Your task to perform on an android device: search for starred emails in the gmail app Image 0: 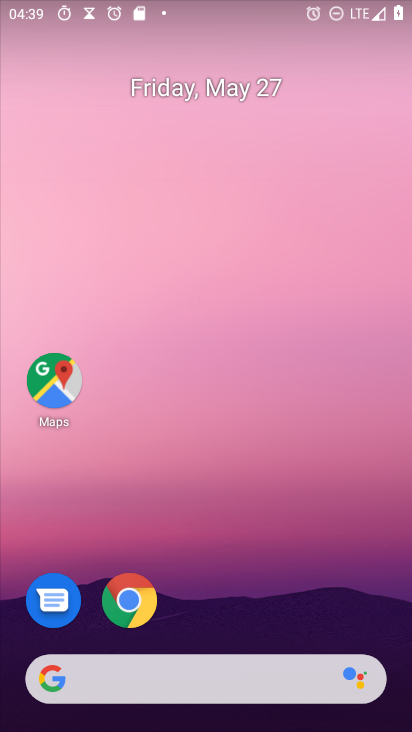
Step 0: click (131, 600)
Your task to perform on an android device: search for starred emails in the gmail app Image 1: 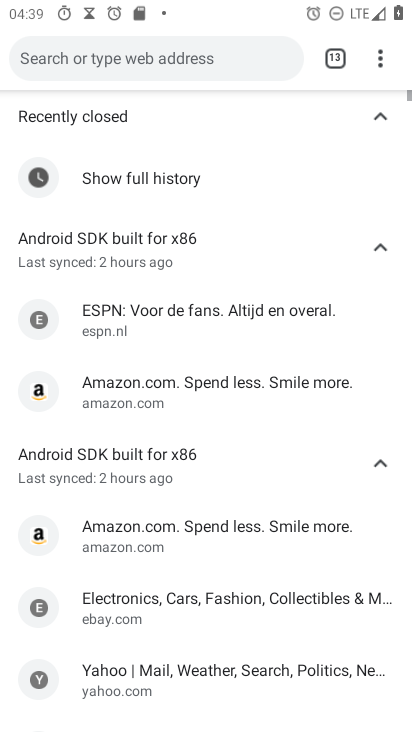
Step 1: press home button
Your task to perform on an android device: search for starred emails in the gmail app Image 2: 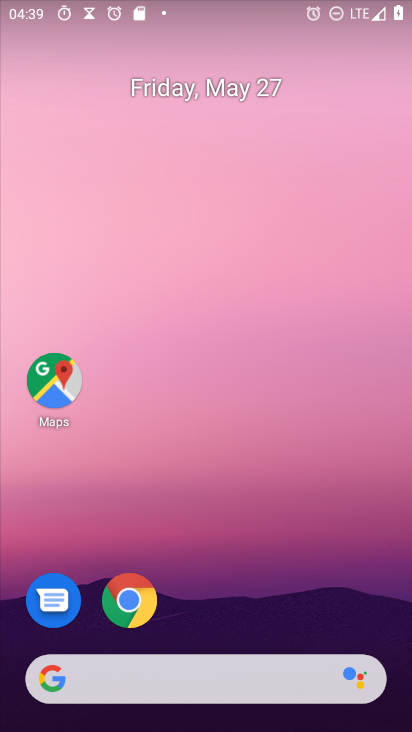
Step 2: drag from (250, 705) to (261, 259)
Your task to perform on an android device: search for starred emails in the gmail app Image 3: 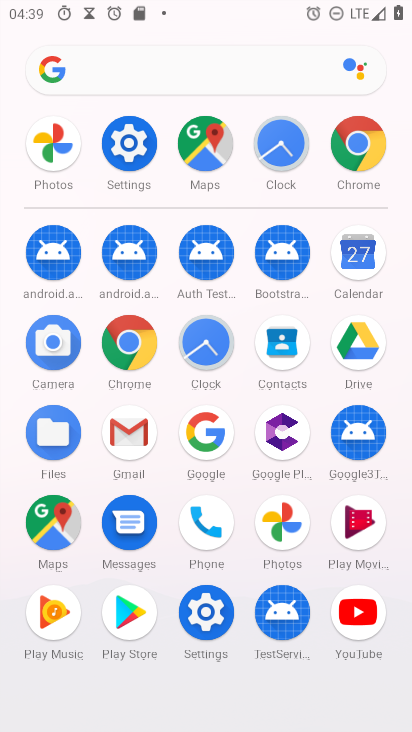
Step 3: click (132, 433)
Your task to perform on an android device: search for starred emails in the gmail app Image 4: 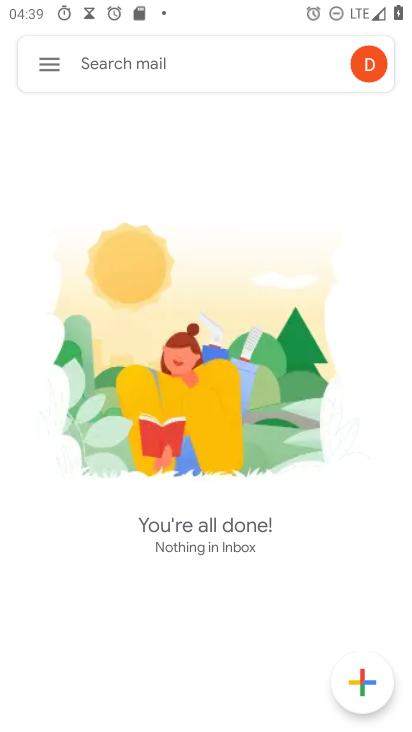
Step 4: click (51, 63)
Your task to perform on an android device: search for starred emails in the gmail app Image 5: 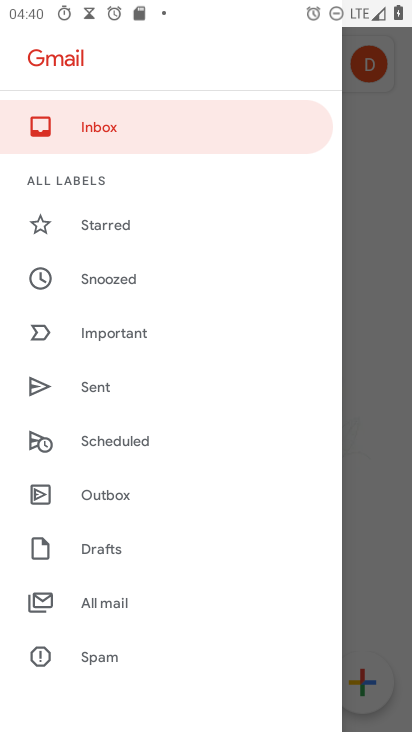
Step 5: drag from (121, 657) to (168, 303)
Your task to perform on an android device: search for starred emails in the gmail app Image 6: 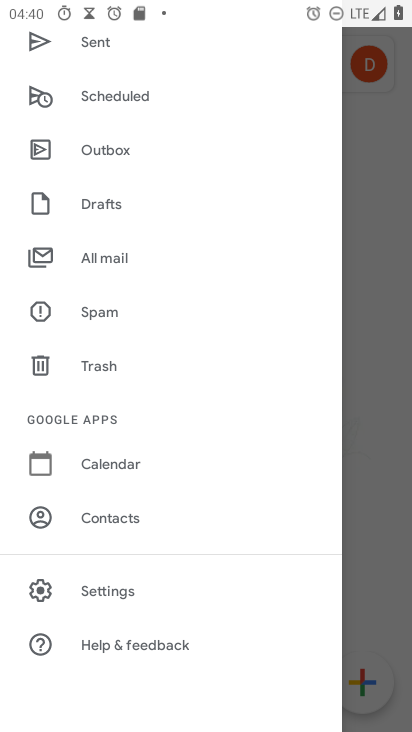
Step 6: drag from (151, 121) to (171, 337)
Your task to perform on an android device: search for starred emails in the gmail app Image 7: 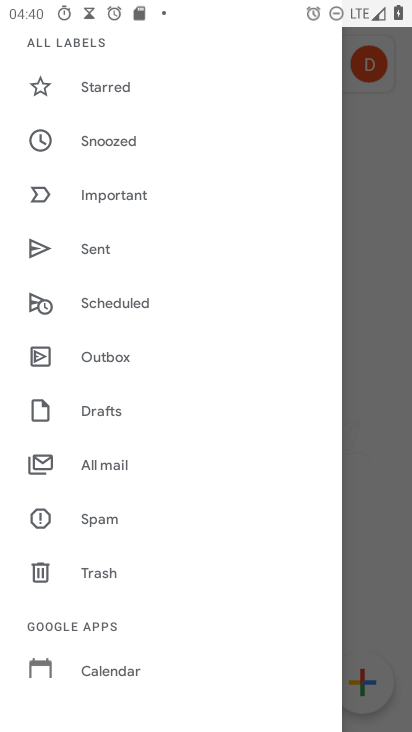
Step 7: click (97, 88)
Your task to perform on an android device: search for starred emails in the gmail app Image 8: 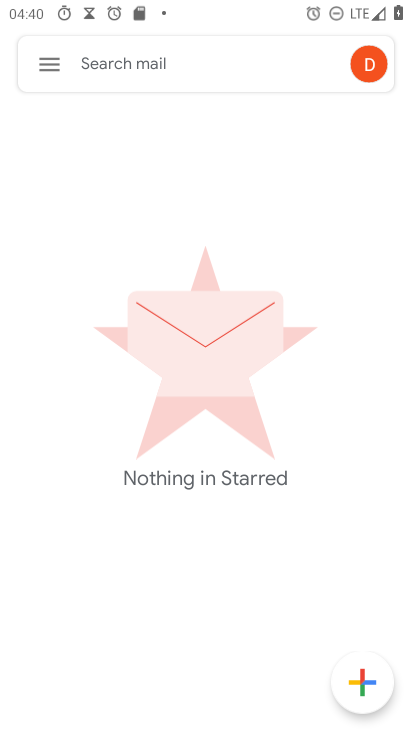
Step 8: task complete